Your task to perform on an android device: turn pop-ups on in chrome Image 0: 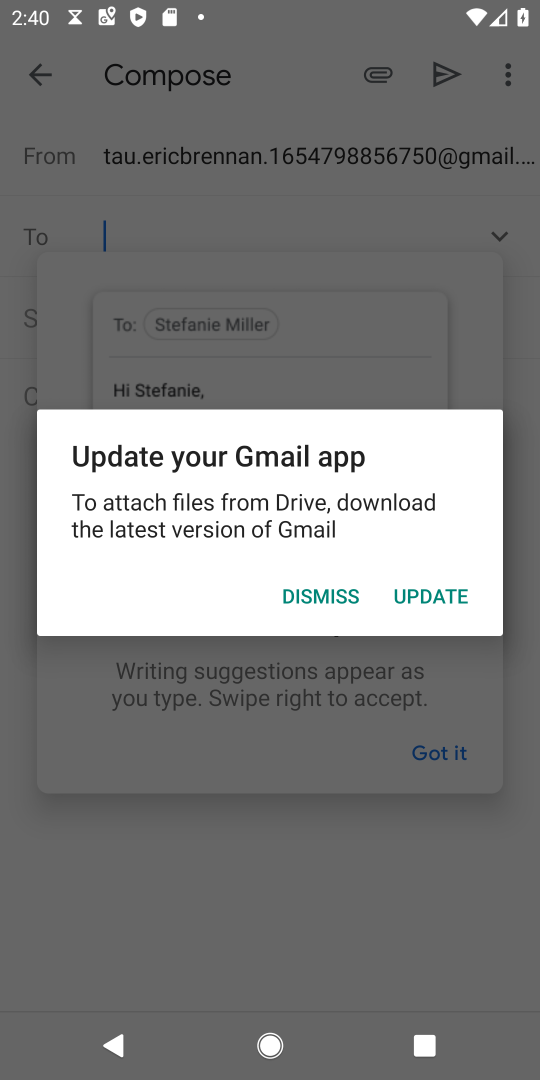
Step 0: press home button
Your task to perform on an android device: turn pop-ups on in chrome Image 1: 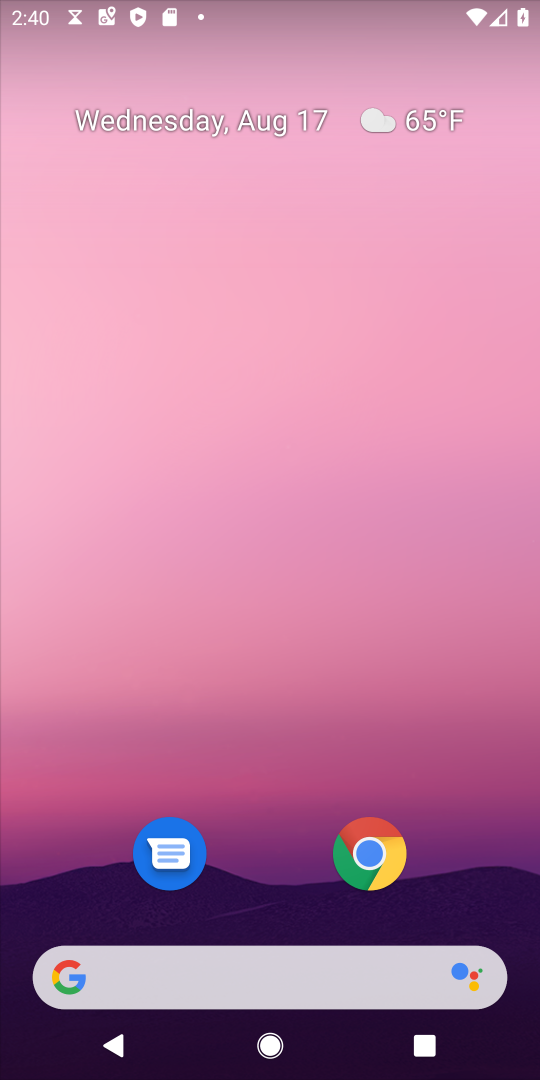
Step 1: drag from (295, 821) to (237, 129)
Your task to perform on an android device: turn pop-ups on in chrome Image 2: 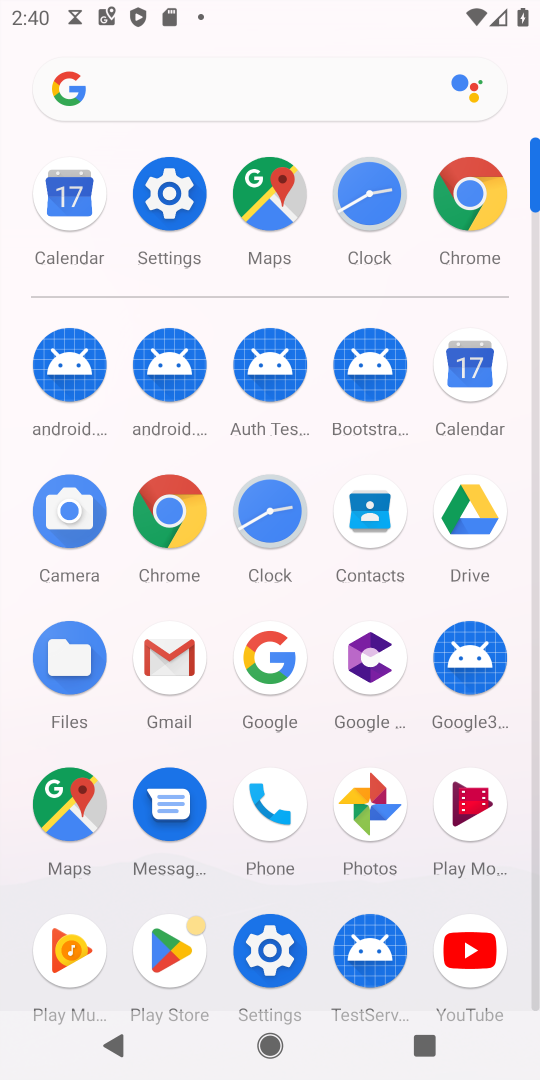
Step 2: click (156, 507)
Your task to perform on an android device: turn pop-ups on in chrome Image 3: 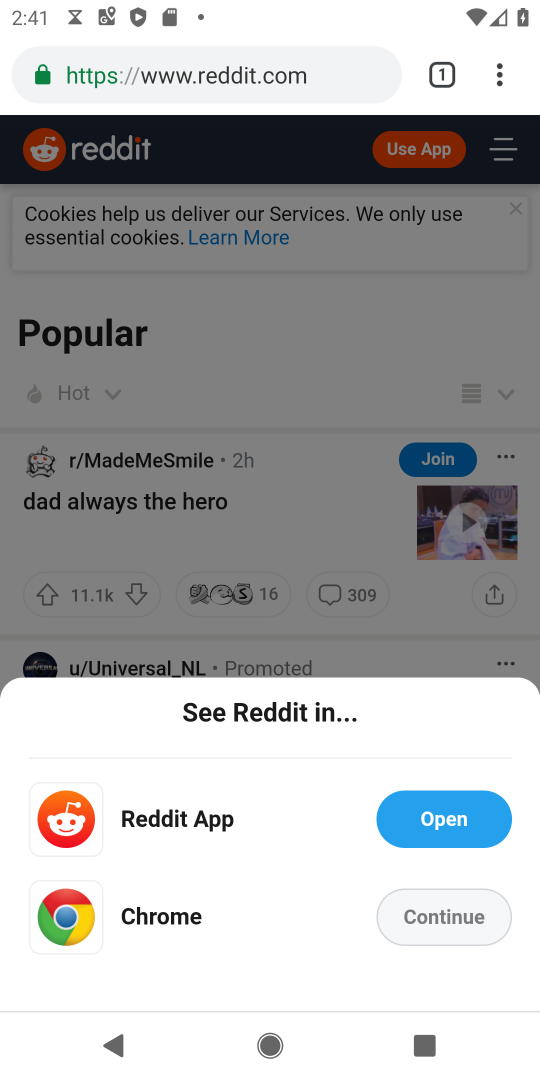
Step 3: drag from (504, 66) to (278, 920)
Your task to perform on an android device: turn pop-ups on in chrome Image 4: 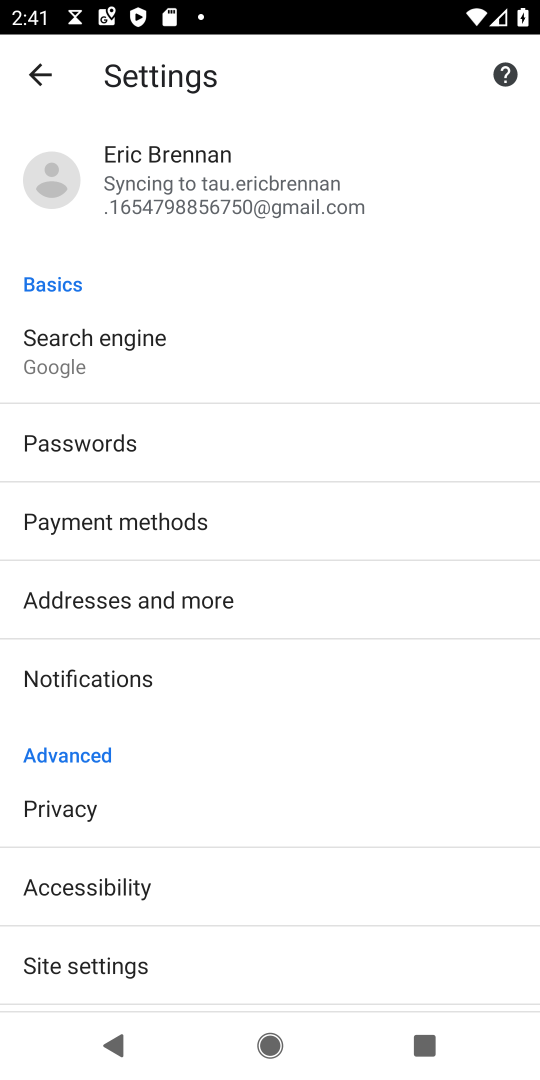
Step 4: drag from (233, 932) to (304, 307)
Your task to perform on an android device: turn pop-ups on in chrome Image 5: 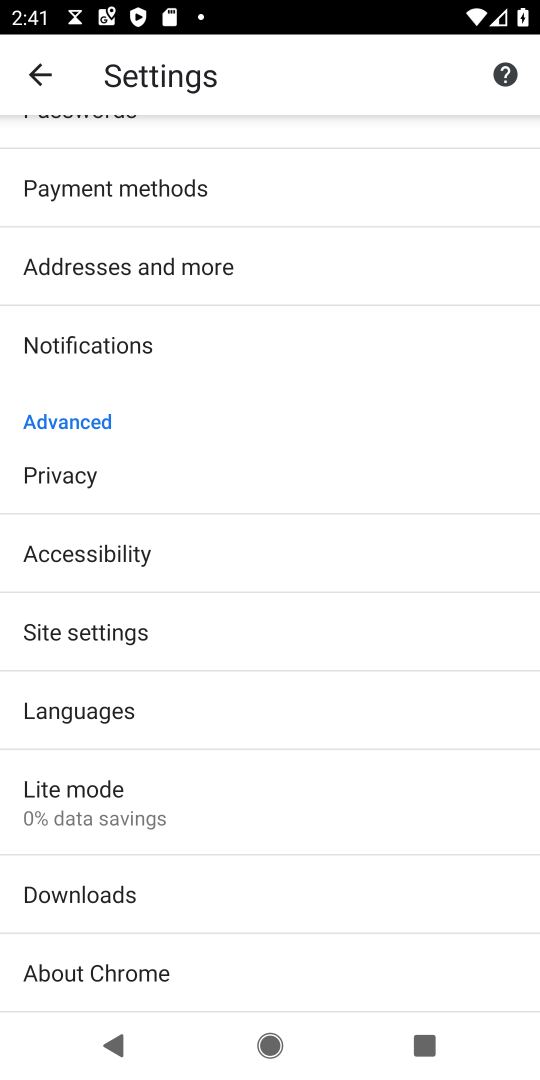
Step 5: click (68, 626)
Your task to perform on an android device: turn pop-ups on in chrome Image 6: 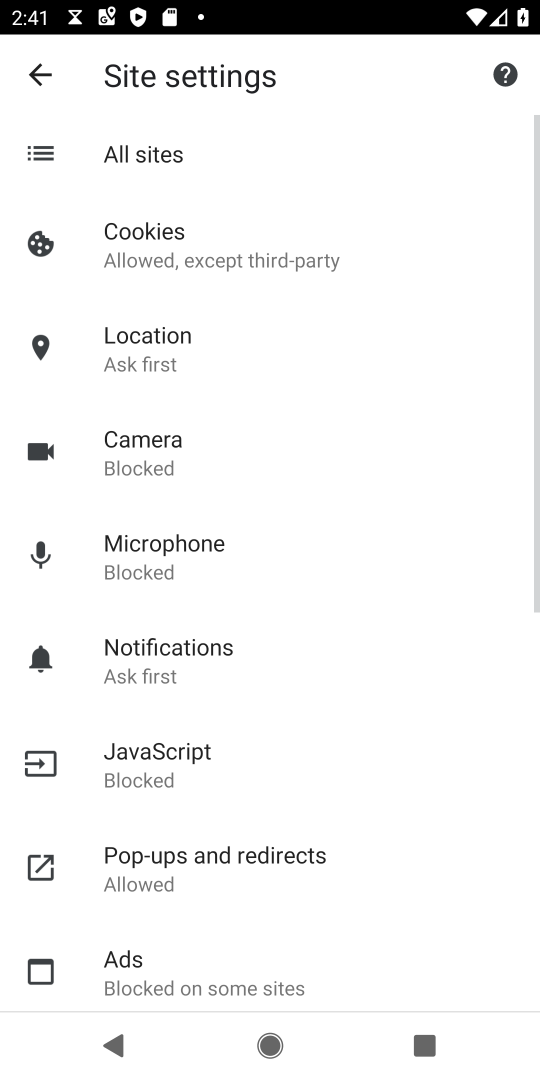
Step 6: click (258, 863)
Your task to perform on an android device: turn pop-ups on in chrome Image 7: 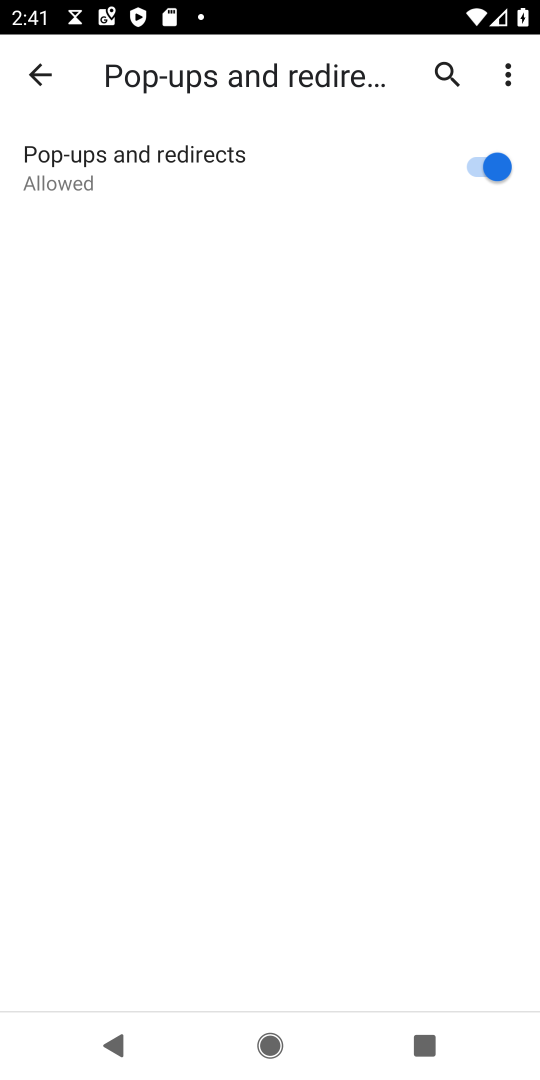
Step 7: task complete